Your task to perform on an android device: Open Chrome and go to the settings page Image 0: 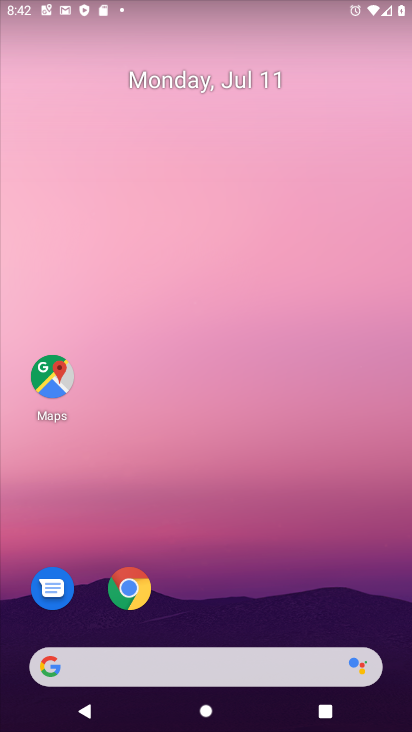
Step 0: click (127, 592)
Your task to perform on an android device: Open Chrome and go to the settings page Image 1: 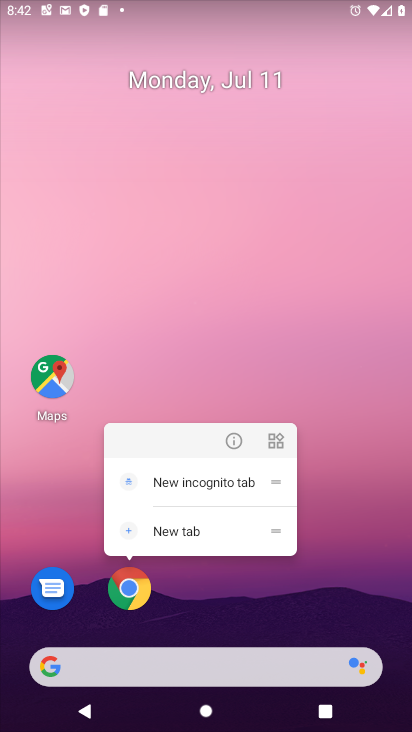
Step 1: click (127, 592)
Your task to perform on an android device: Open Chrome and go to the settings page Image 2: 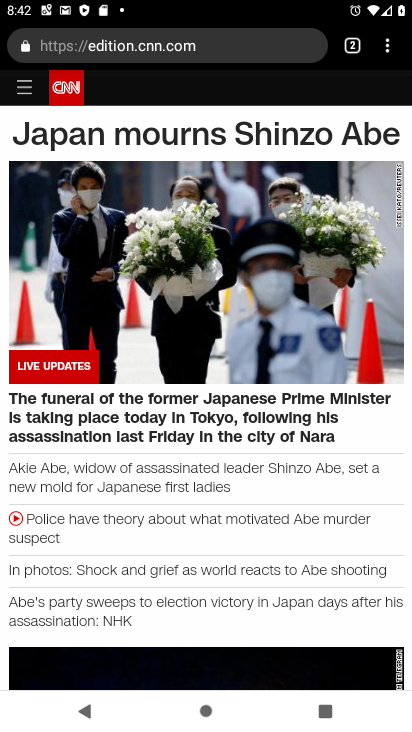
Step 2: task complete